Your task to perform on an android device: Go to internet settings Image 0: 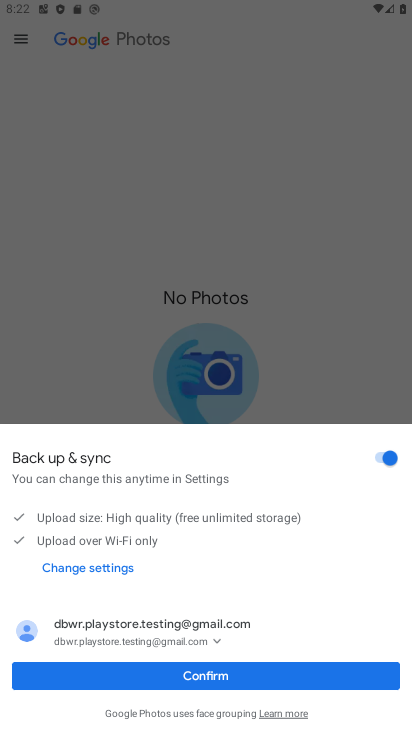
Step 0: click (203, 674)
Your task to perform on an android device: Go to internet settings Image 1: 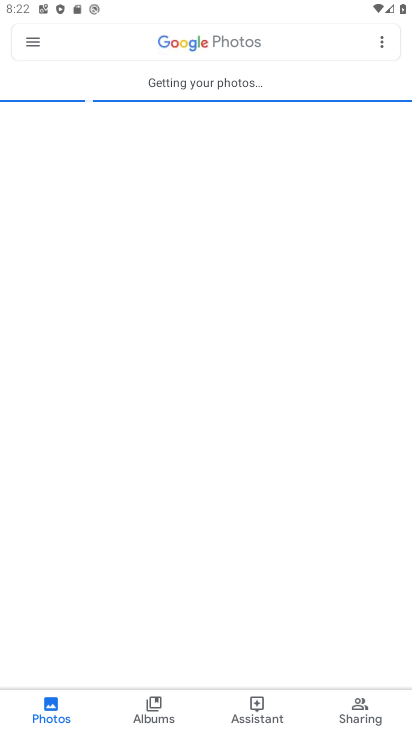
Step 1: press home button
Your task to perform on an android device: Go to internet settings Image 2: 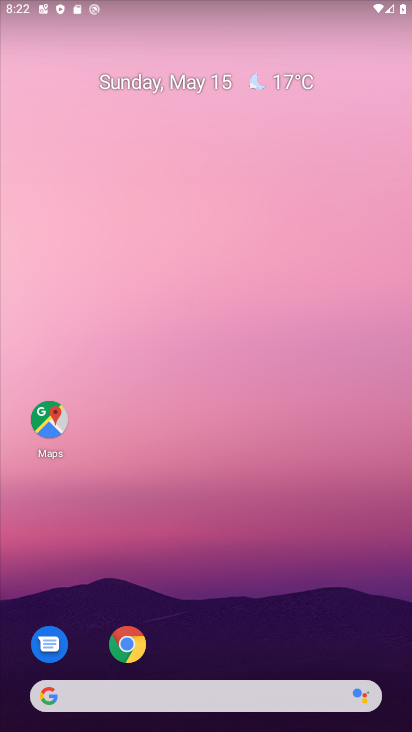
Step 2: drag from (214, 652) to (276, 249)
Your task to perform on an android device: Go to internet settings Image 3: 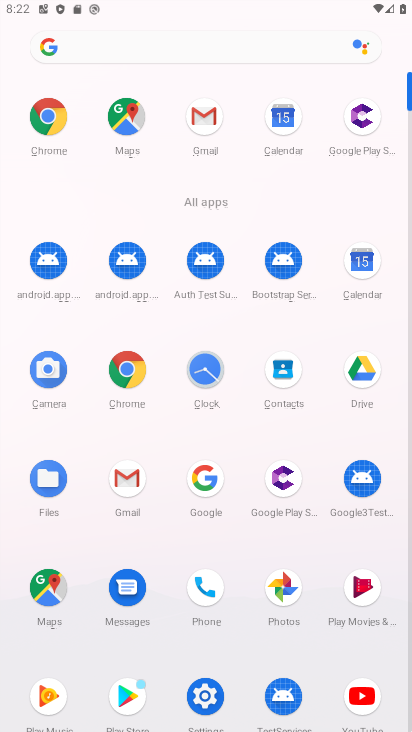
Step 3: click (213, 682)
Your task to perform on an android device: Go to internet settings Image 4: 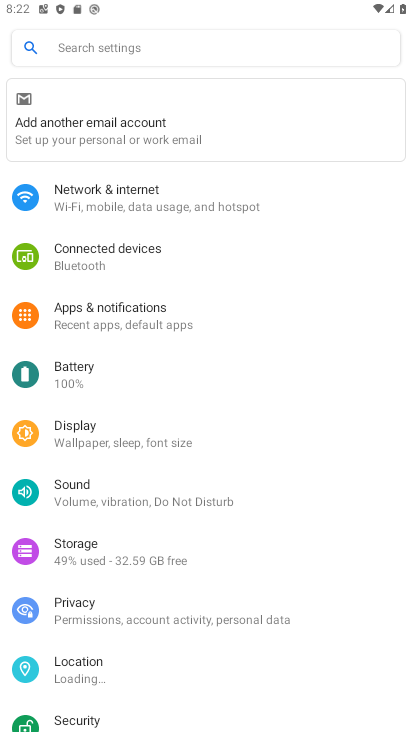
Step 4: click (142, 189)
Your task to perform on an android device: Go to internet settings Image 5: 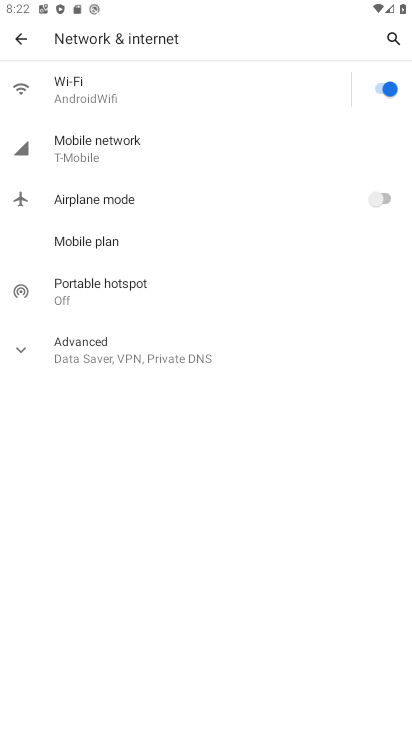
Step 5: task complete